Your task to perform on an android device: open app "Paramount+ | Peak Streaming" (install if not already installed) Image 0: 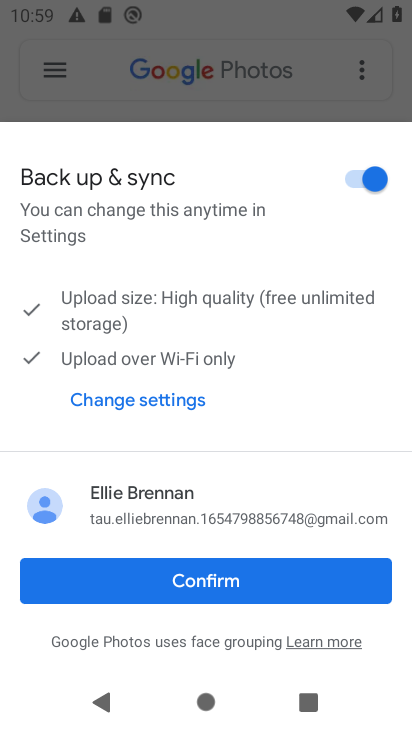
Step 0: press back button
Your task to perform on an android device: open app "Paramount+ | Peak Streaming" (install if not already installed) Image 1: 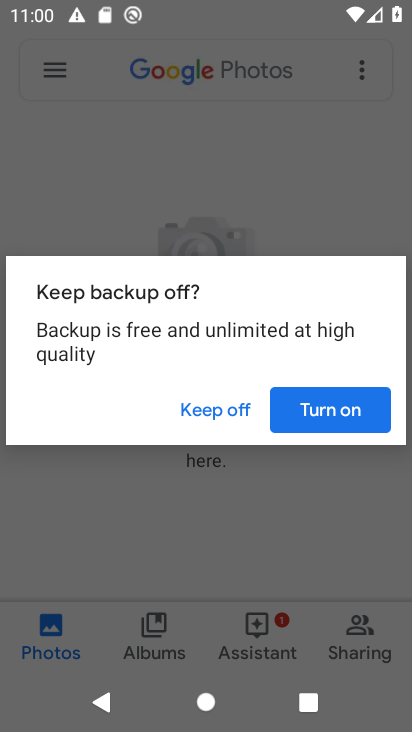
Step 1: press back button
Your task to perform on an android device: open app "Paramount+ | Peak Streaming" (install if not already installed) Image 2: 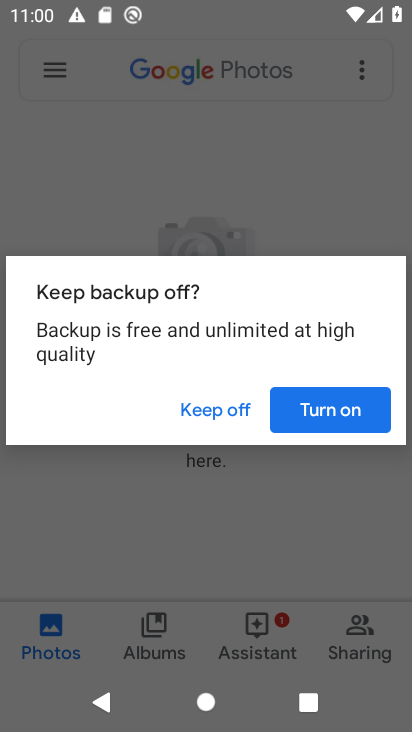
Step 2: press home button
Your task to perform on an android device: open app "Paramount+ | Peak Streaming" (install if not already installed) Image 3: 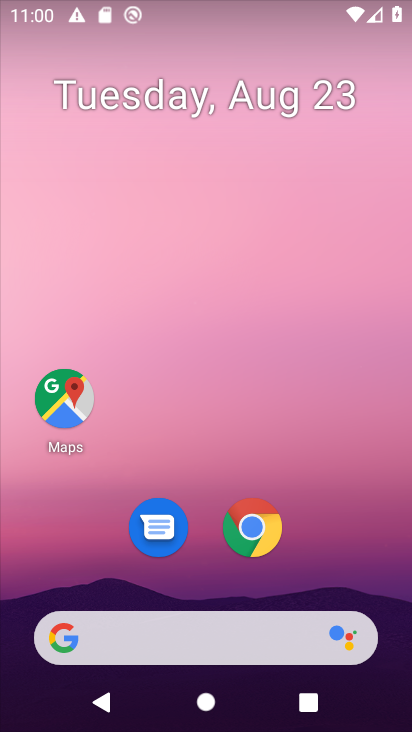
Step 3: drag from (218, 558) to (332, 19)
Your task to perform on an android device: open app "Paramount+ | Peak Streaming" (install if not already installed) Image 4: 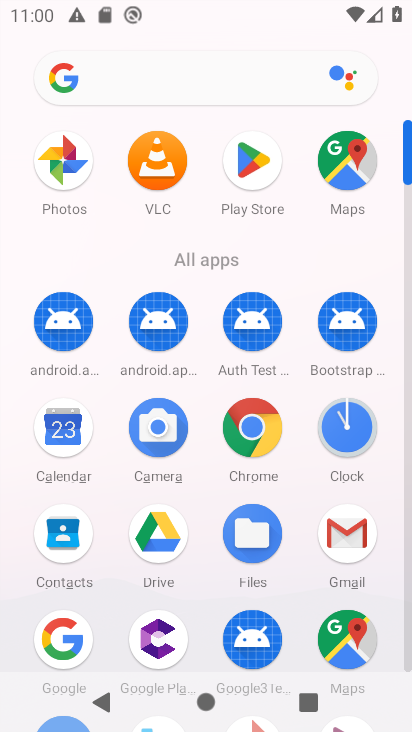
Step 4: click (256, 176)
Your task to perform on an android device: open app "Paramount+ | Peak Streaming" (install if not already installed) Image 5: 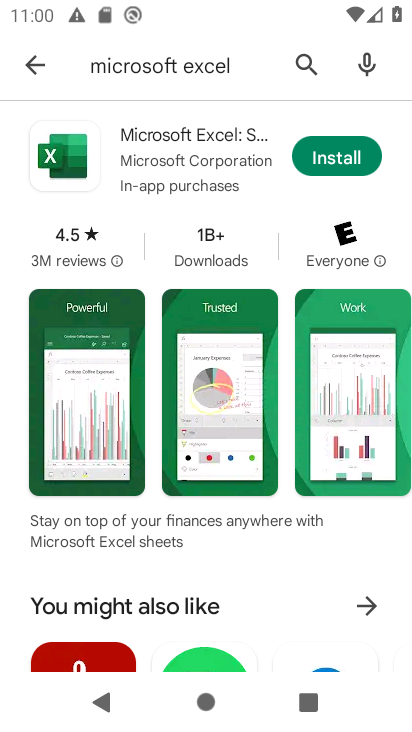
Step 5: click (301, 62)
Your task to perform on an android device: open app "Paramount+ | Peak Streaming" (install if not already installed) Image 6: 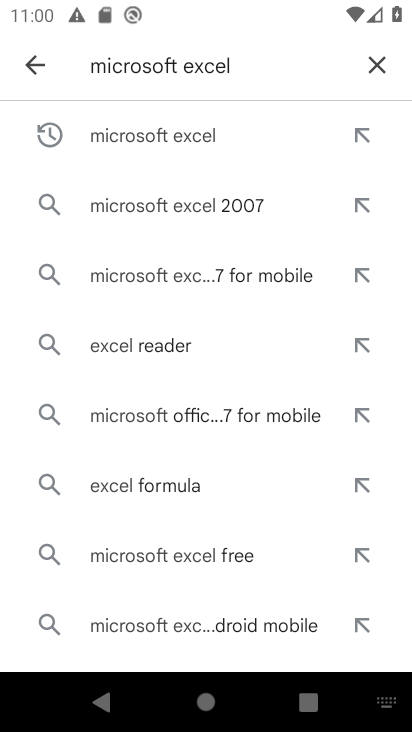
Step 6: click (366, 57)
Your task to perform on an android device: open app "Paramount+ | Peak Streaming" (install if not already installed) Image 7: 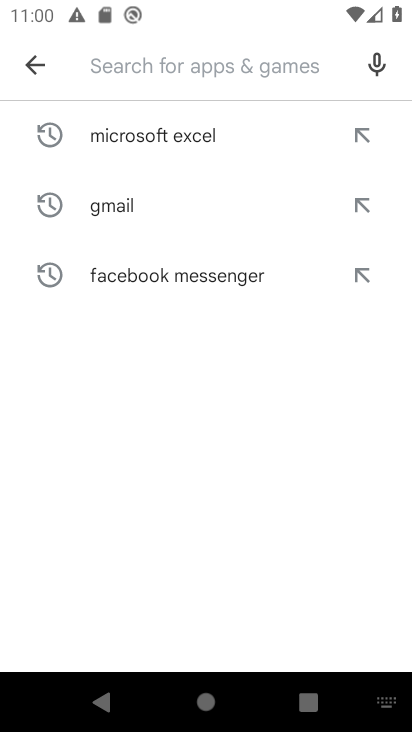
Step 7: click (125, 55)
Your task to perform on an android device: open app "Paramount+ | Peak Streaming" (install if not already installed) Image 8: 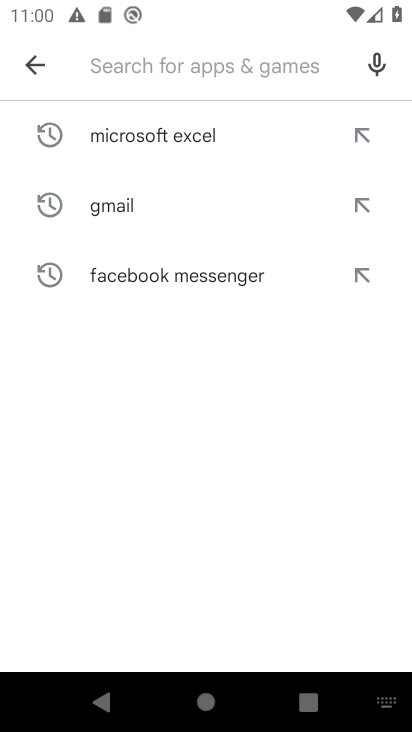
Step 8: type "Paramount+ "
Your task to perform on an android device: open app "Paramount+ | Peak Streaming" (install if not already installed) Image 9: 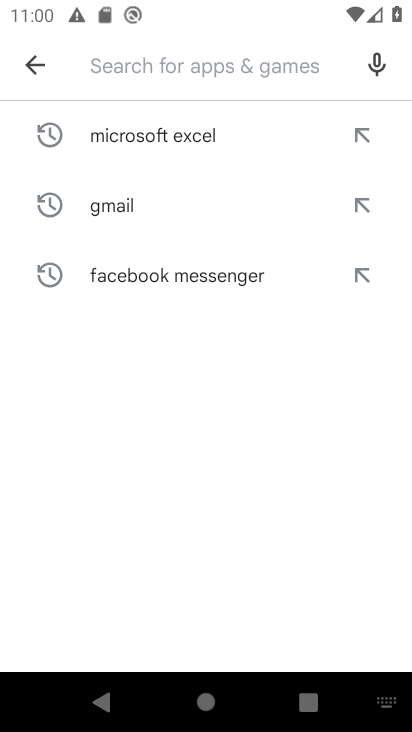
Step 9: click (234, 496)
Your task to perform on an android device: open app "Paramount+ | Peak Streaming" (install if not already installed) Image 10: 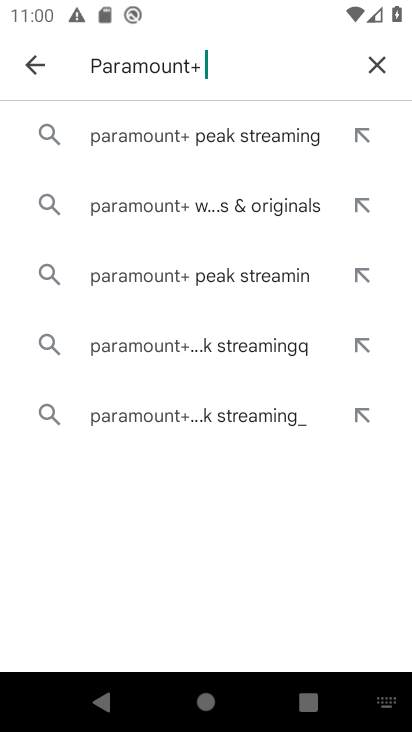
Step 10: click (195, 130)
Your task to perform on an android device: open app "Paramount+ | Peak Streaming" (install if not already installed) Image 11: 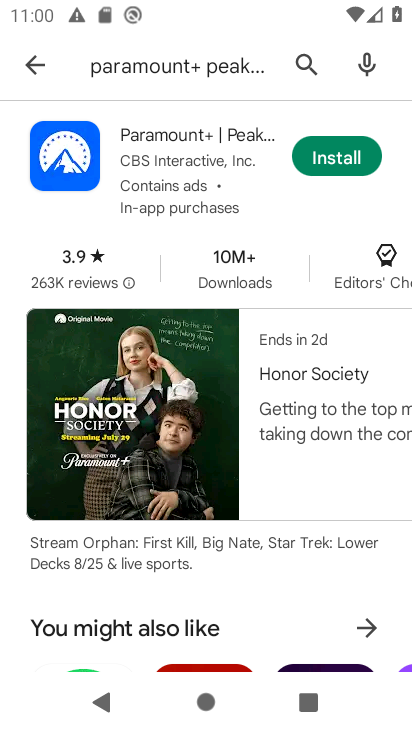
Step 11: click (346, 154)
Your task to perform on an android device: open app "Paramount+ | Peak Streaming" (install if not already installed) Image 12: 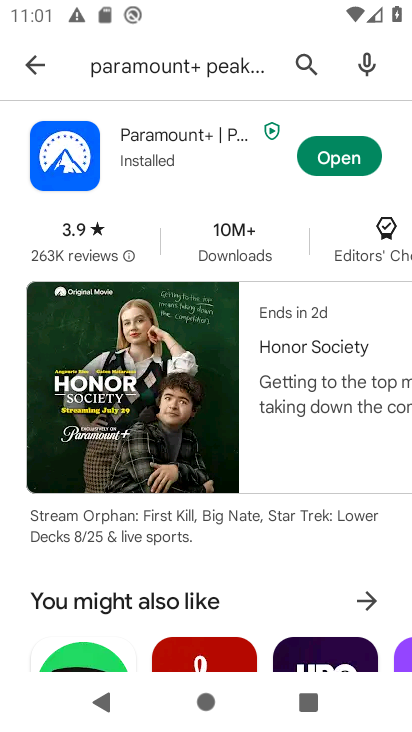
Step 12: click (324, 157)
Your task to perform on an android device: open app "Paramount+ | Peak Streaming" (install if not already installed) Image 13: 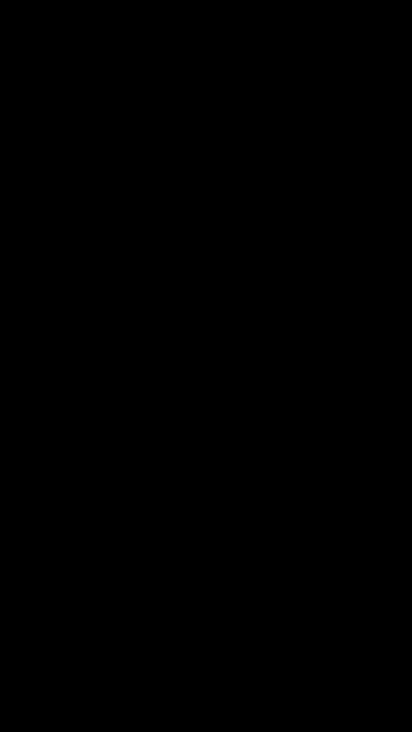
Step 13: task complete